Your task to perform on an android device: Open calendar and show me the second week of next month Image 0: 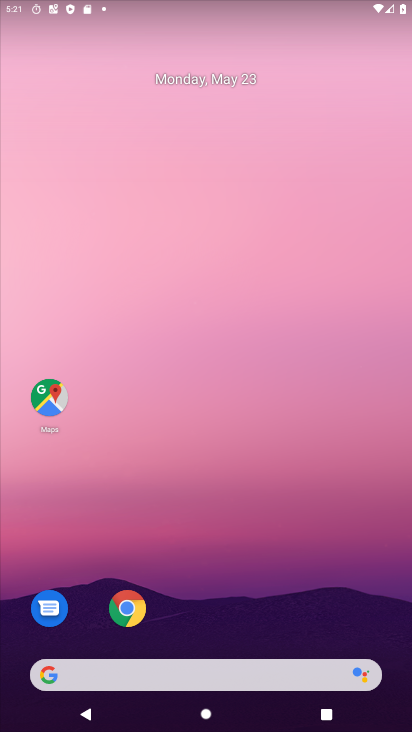
Step 0: drag from (226, 599) to (243, 6)
Your task to perform on an android device: Open calendar and show me the second week of next month Image 1: 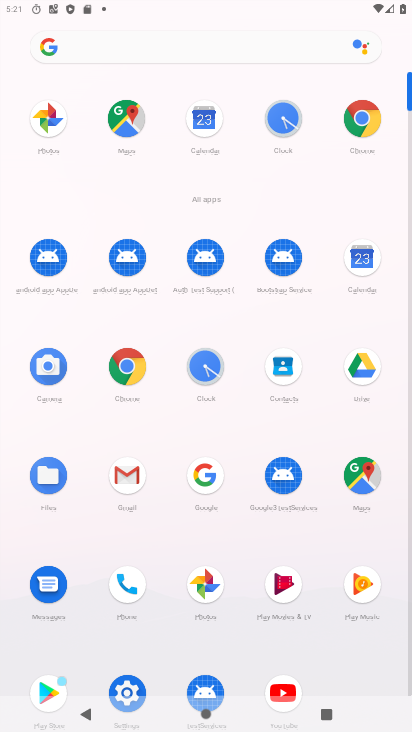
Step 1: click (356, 279)
Your task to perform on an android device: Open calendar and show me the second week of next month Image 2: 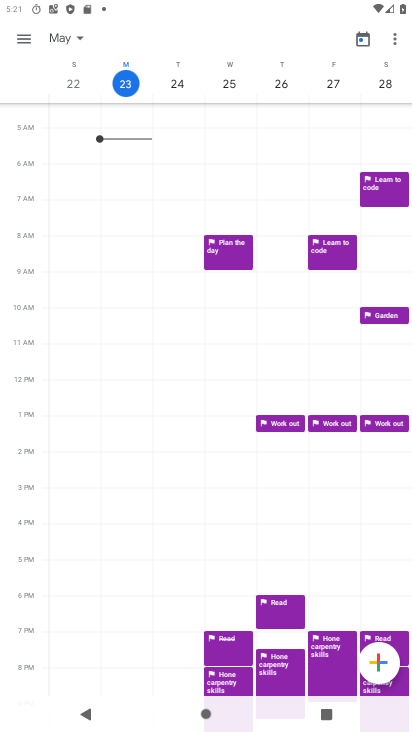
Step 2: click (23, 38)
Your task to perform on an android device: Open calendar and show me the second week of next month Image 3: 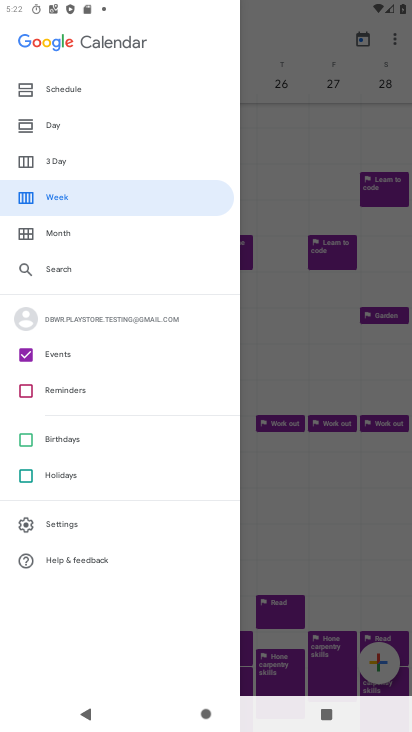
Step 3: click (106, 206)
Your task to perform on an android device: Open calendar and show me the second week of next month Image 4: 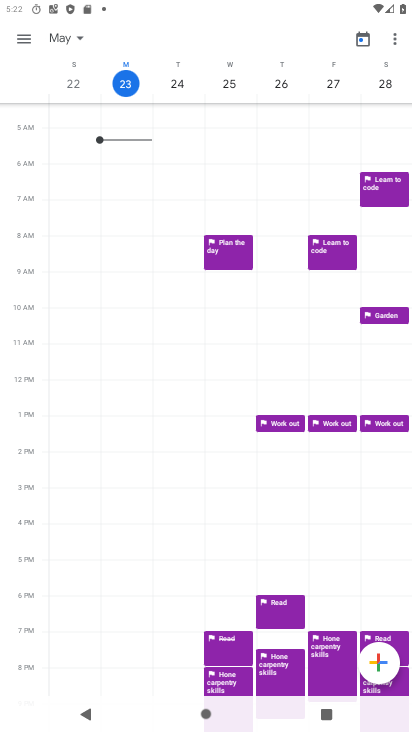
Step 4: task complete